Your task to perform on an android device: toggle notifications settings in the gmail app Image 0: 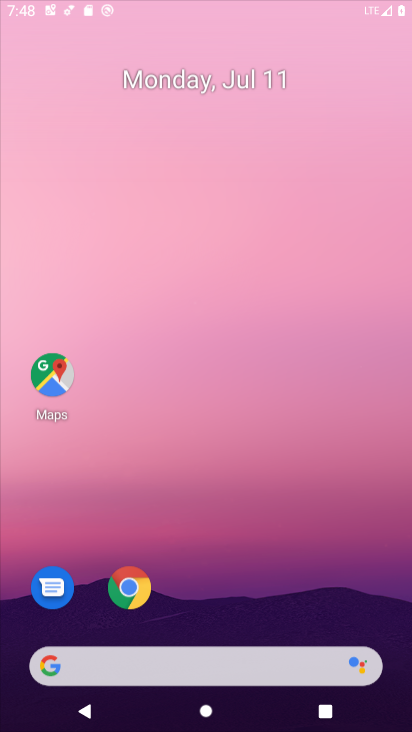
Step 0: drag from (385, 630) to (262, 16)
Your task to perform on an android device: toggle notifications settings in the gmail app Image 1: 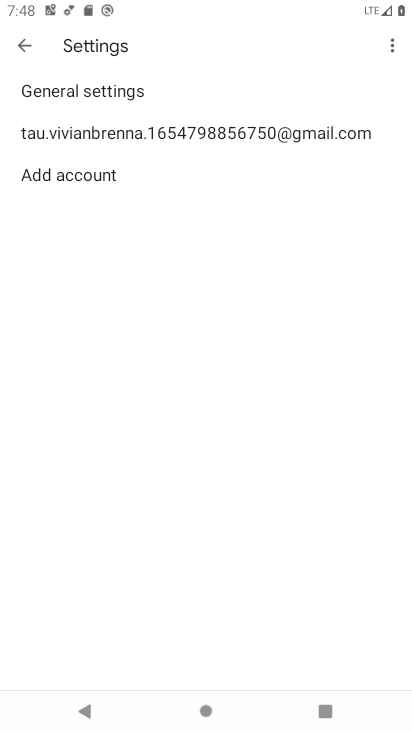
Step 1: press home button
Your task to perform on an android device: toggle notifications settings in the gmail app Image 2: 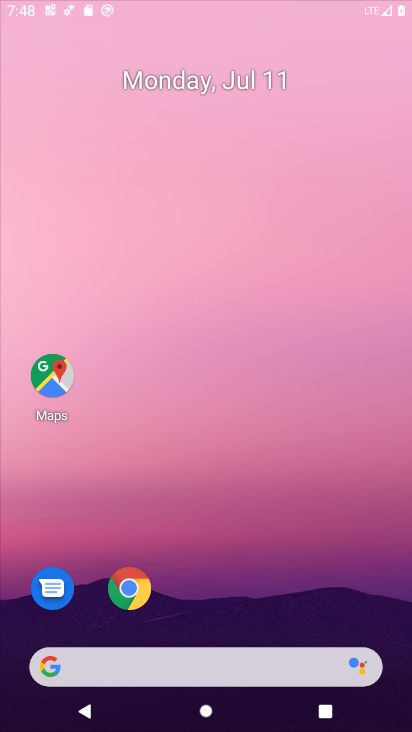
Step 2: drag from (377, 652) to (38, 170)
Your task to perform on an android device: toggle notifications settings in the gmail app Image 3: 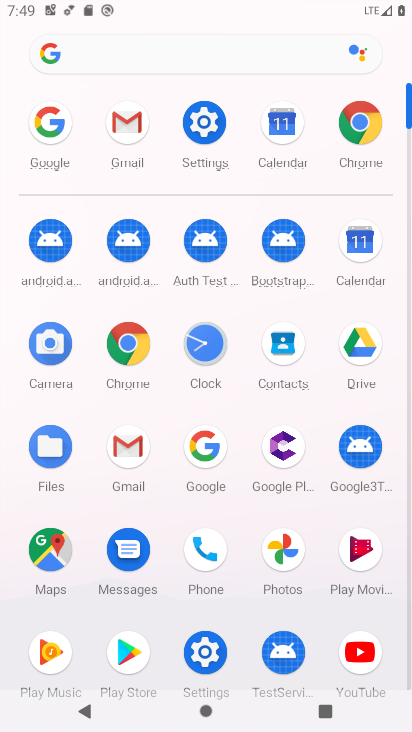
Step 3: click (125, 459)
Your task to perform on an android device: toggle notifications settings in the gmail app Image 4: 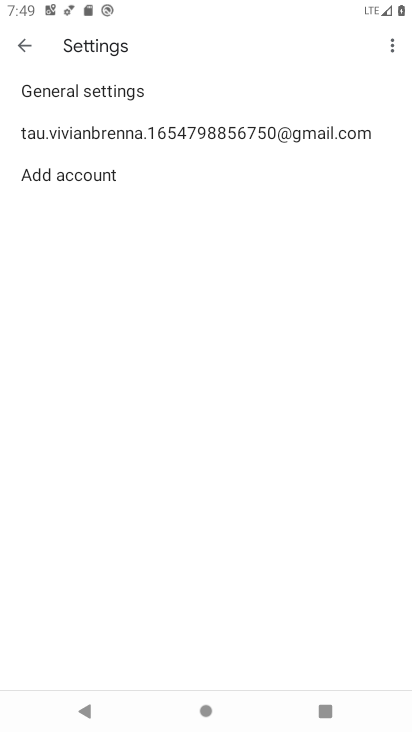
Step 4: click (248, 128)
Your task to perform on an android device: toggle notifications settings in the gmail app Image 5: 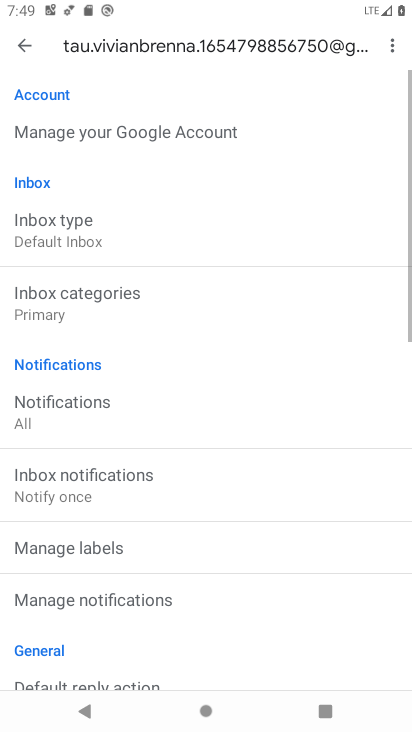
Step 5: click (73, 431)
Your task to perform on an android device: toggle notifications settings in the gmail app Image 6: 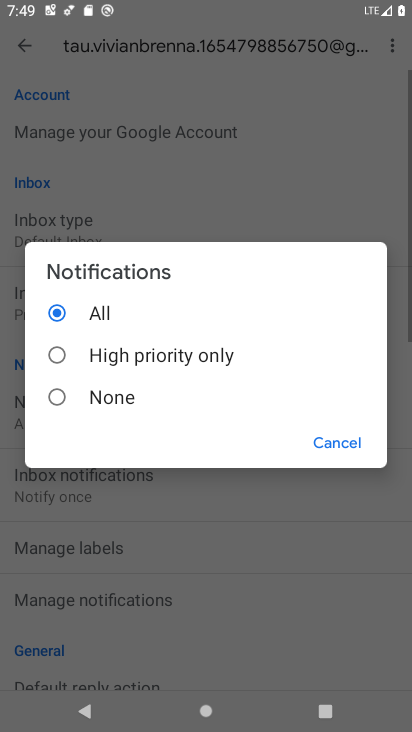
Step 6: click (79, 399)
Your task to perform on an android device: toggle notifications settings in the gmail app Image 7: 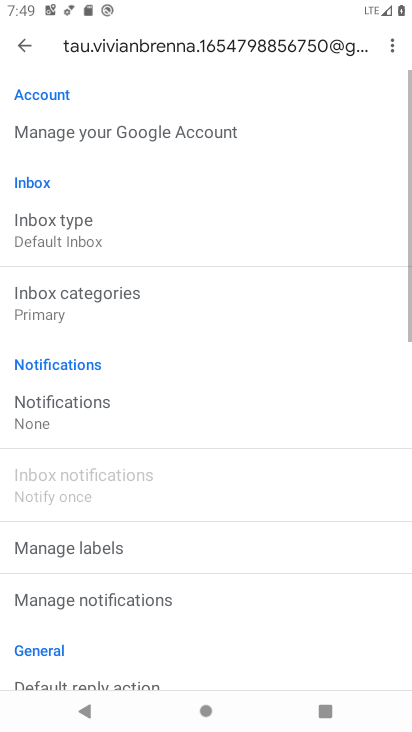
Step 7: task complete